Your task to perform on an android device: open device folders in google photos Image 0: 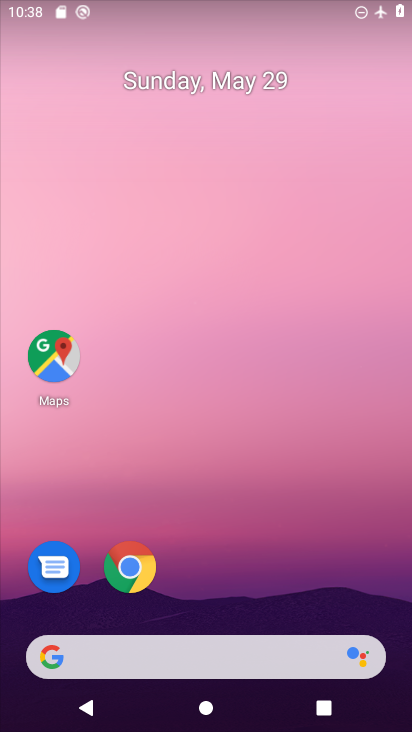
Step 0: drag from (376, 612) to (259, 3)
Your task to perform on an android device: open device folders in google photos Image 1: 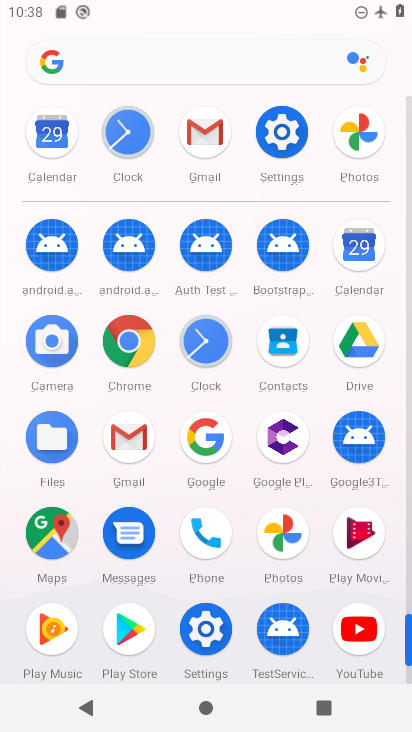
Step 1: click (282, 532)
Your task to perform on an android device: open device folders in google photos Image 2: 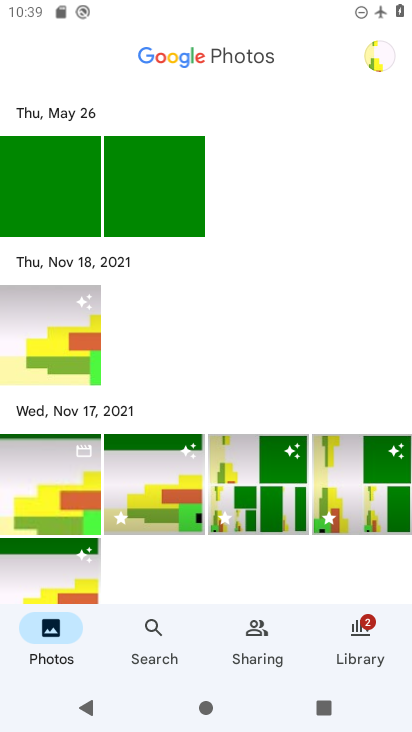
Step 2: task complete